Your task to perform on an android device: When is my next meeting? Image 0: 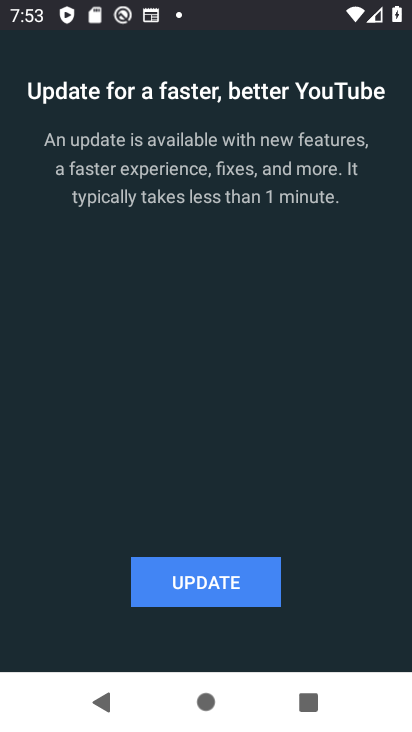
Step 0: press home button
Your task to perform on an android device: When is my next meeting? Image 1: 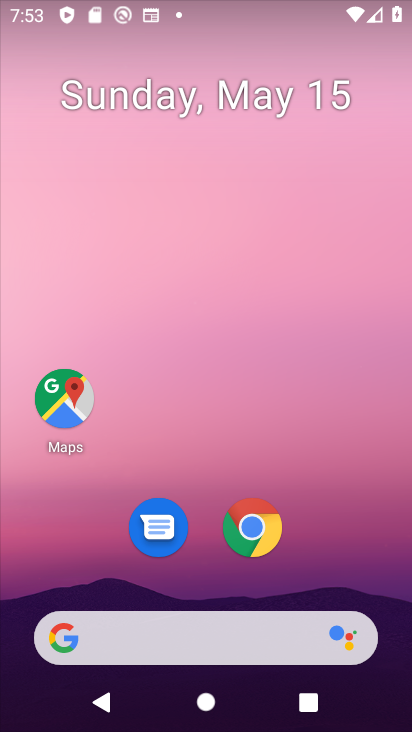
Step 1: drag from (205, 573) to (274, 152)
Your task to perform on an android device: When is my next meeting? Image 2: 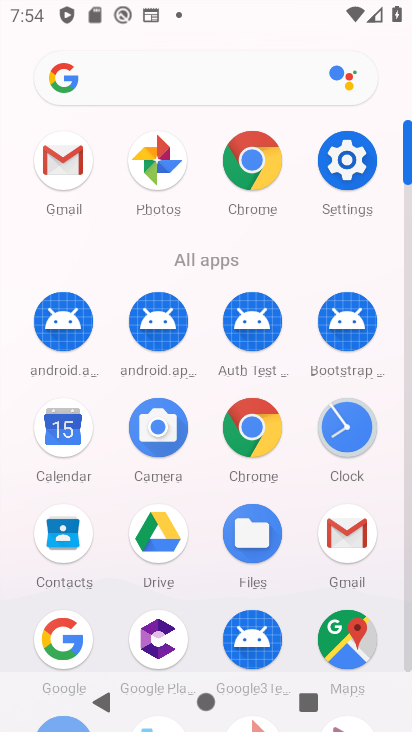
Step 2: click (71, 430)
Your task to perform on an android device: When is my next meeting? Image 3: 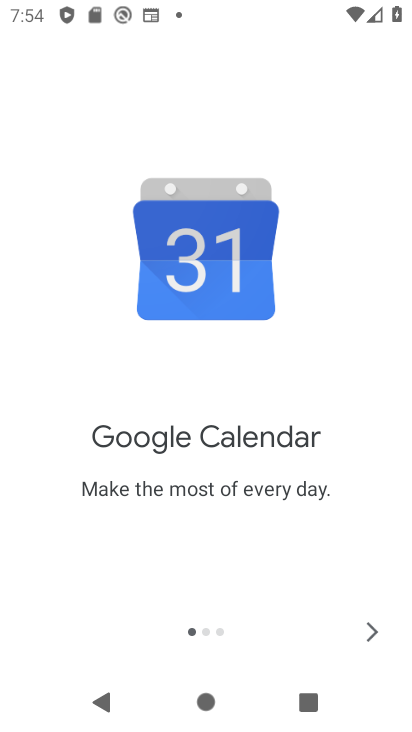
Step 3: click (372, 628)
Your task to perform on an android device: When is my next meeting? Image 4: 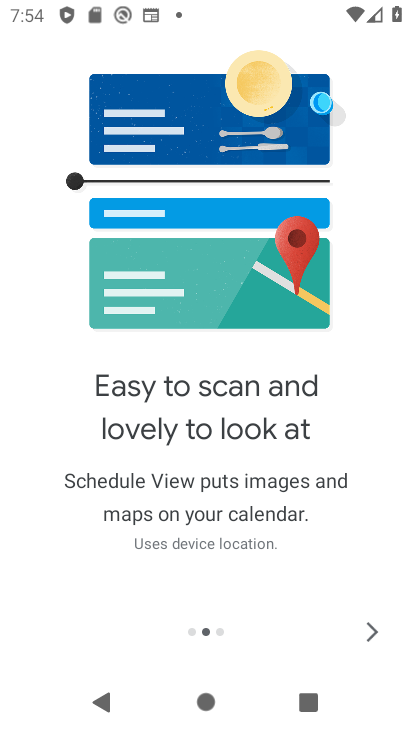
Step 4: click (372, 628)
Your task to perform on an android device: When is my next meeting? Image 5: 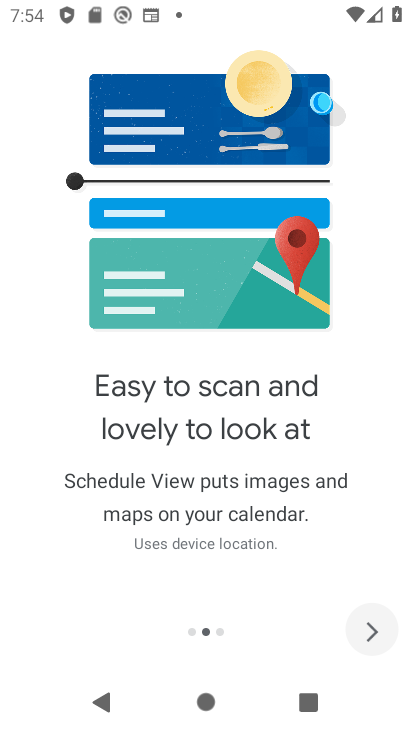
Step 5: click (372, 628)
Your task to perform on an android device: When is my next meeting? Image 6: 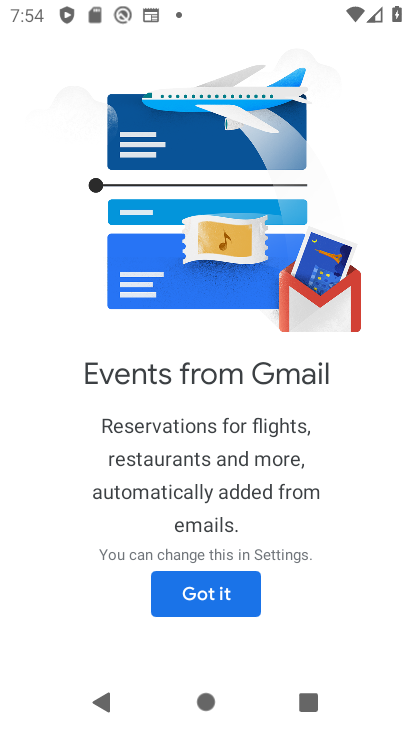
Step 6: click (228, 595)
Your task to perform on an android device: When is my next meeting? Image 7: 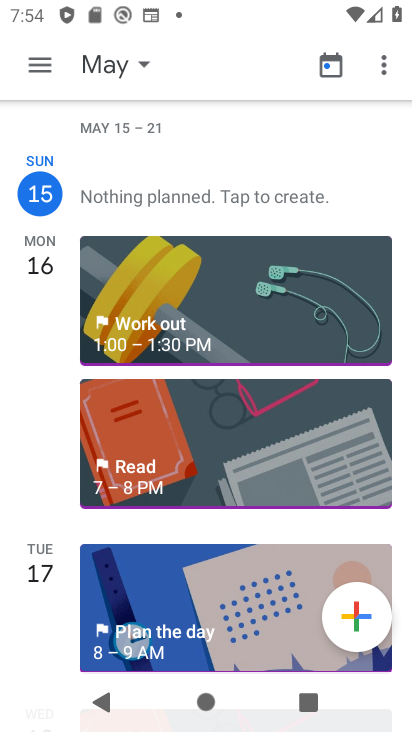
Step 7: click (138, 68)
Your task to perform on an android device: When is my next meeting? Image 8: 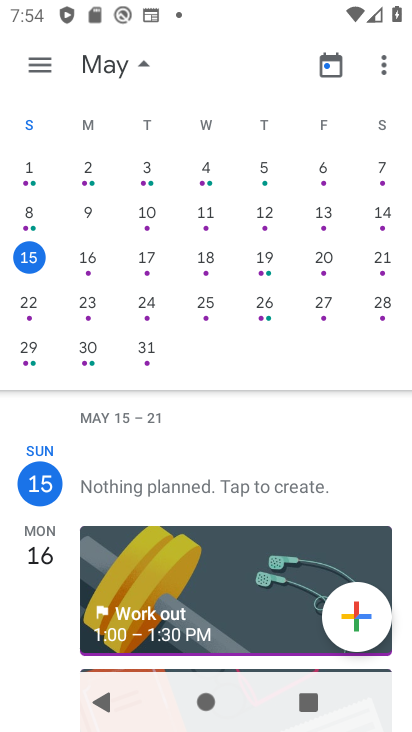
Step 8: task complete